Your task to perform on an android device: empty trash in the gmail app Image 0: 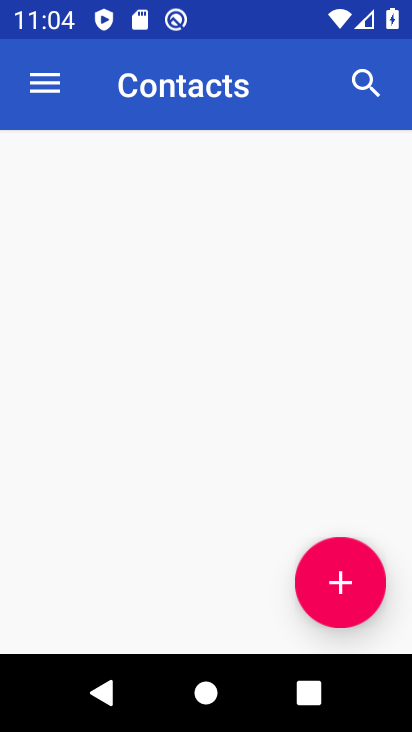
Step 0: press home button
Your task to perform on an android device: empty trash in the gmail app Image 1: 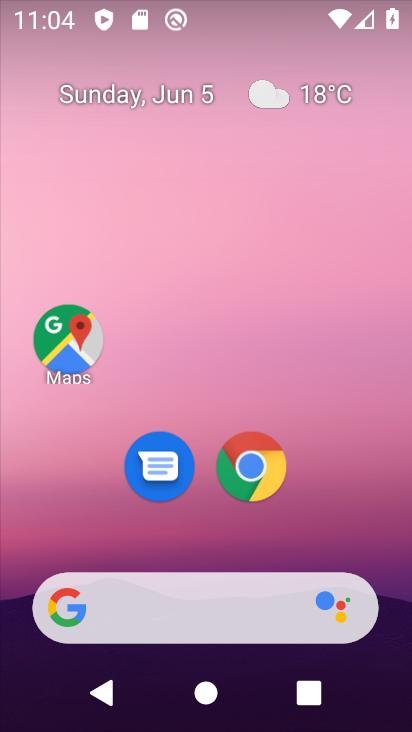
Step 1: drag from (359, 504) to (360, 108)
Your task to perform on an android device: empty trash in the gmail app Image 2: 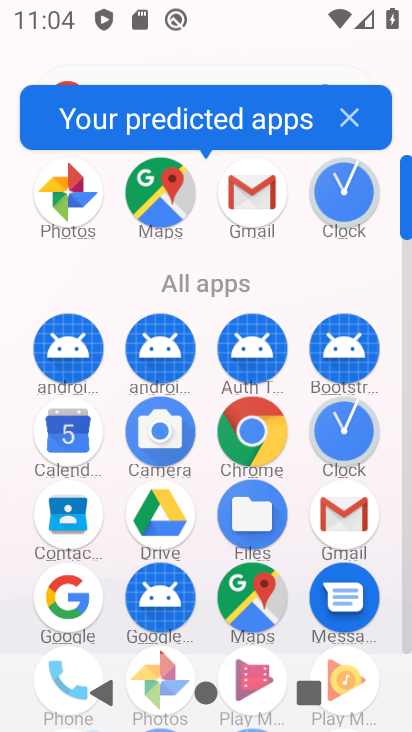
Step 2: click (354, 535)
Your task to perform on an android device: empty trash in the gmail app Image 3: 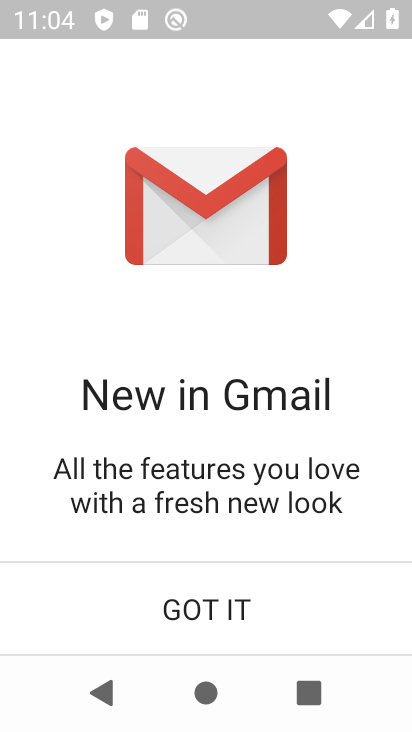
Step 3: click (255, 608)
Your task to perform on an android device: empty trash in the gmail app Image 4: 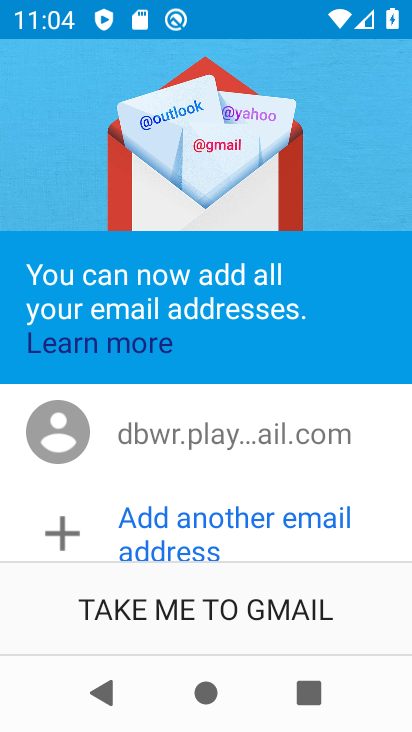
Step 4: click (261, 607)
Your task to perform on an android device: empty trash in the gmail app Image 5: 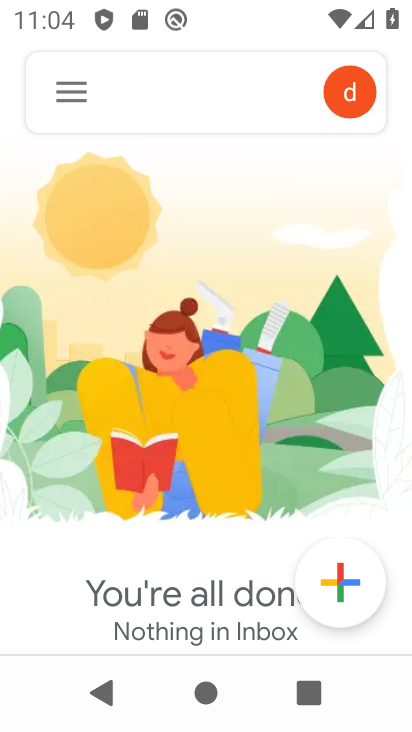
Step 5: click (74, 82)
Your task to perform on an android device: empty trash in the gmail app Image 6: 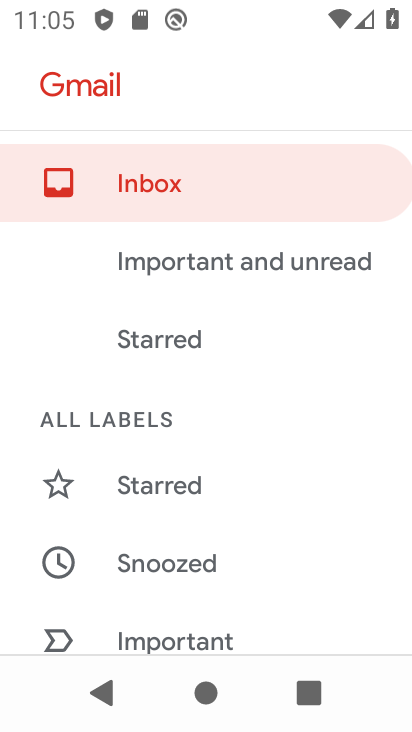
Step 6: drag from (211, 547) to (249, 213)
Your task to perform on an android device: empty trash in the gmail app Image 7: 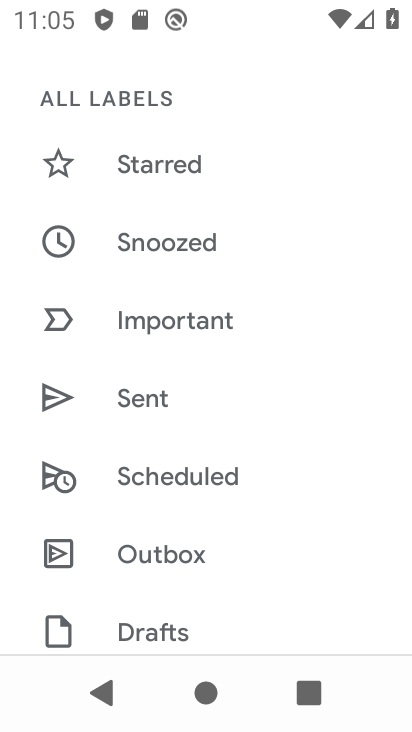
Step 7: drag from (254, 542) to (282, 287)
Your task to perform on an android device: empty trash in the gmail app Image 8: 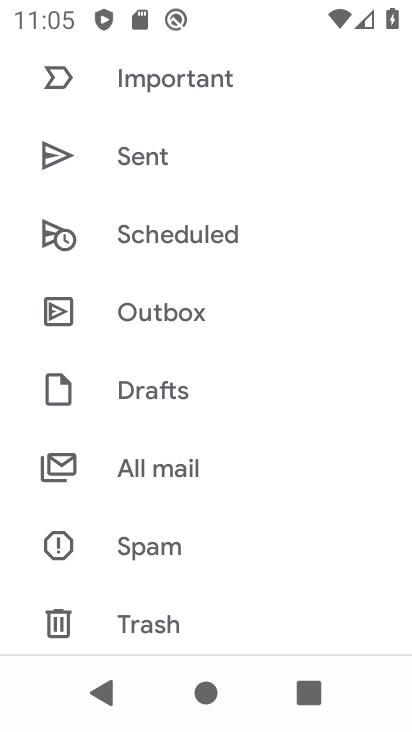
Step 8: click (189, 605)
Your task to perform on an android device: empty trash in the gmail app Image 9: 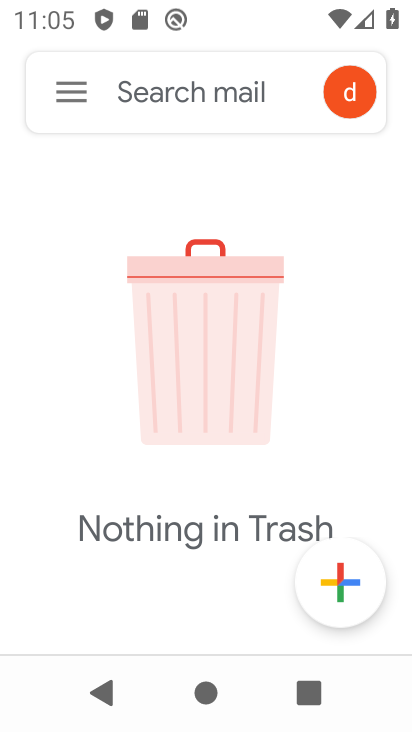
Step 9: task complete